Your task to perform on an android device: toggle pop-ups in chrome Image 0: 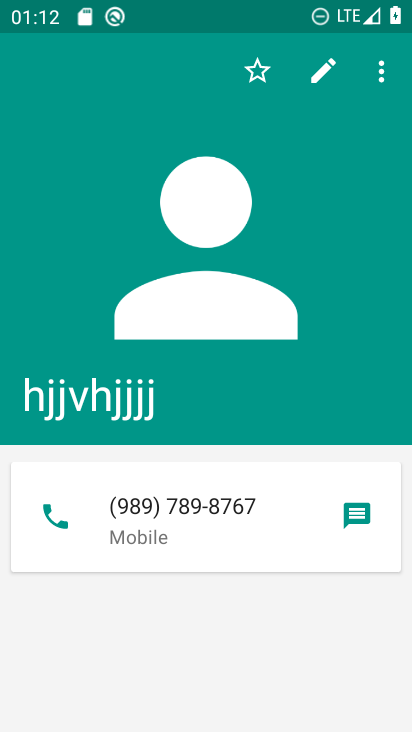
Step 0: press home button
Your task to perform on an android device: toggle pop-ups in chrome Image 1: 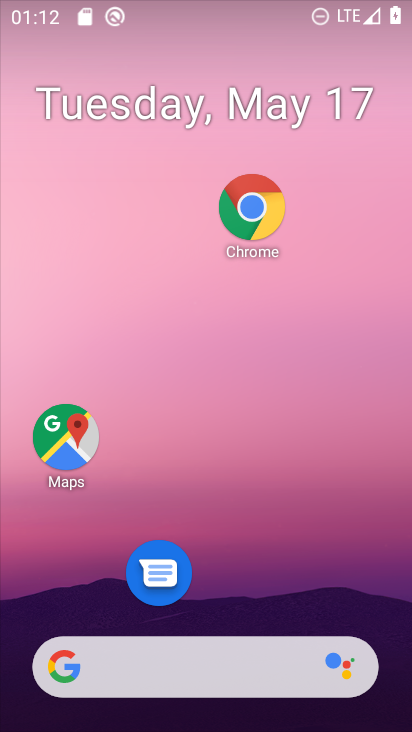
Step 1: drag from (229, 682) to (239, 156)
Your task to perform on an android device: toggle pop-ups in chrome Image 2: 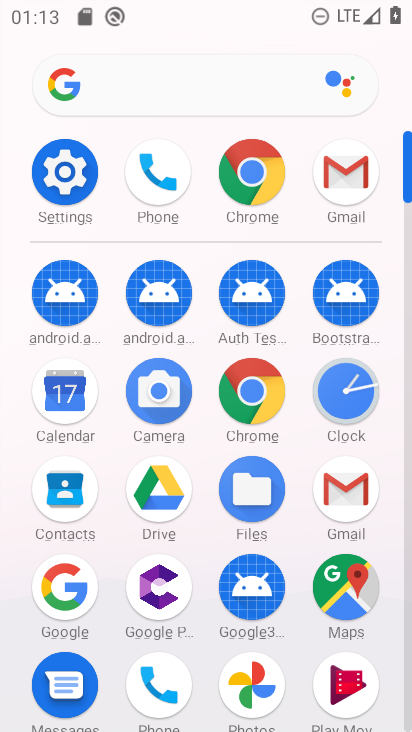
Step 2: click (256, 399)
Your task to perform on an android device: toggle pop-ups in chrome Image 3: 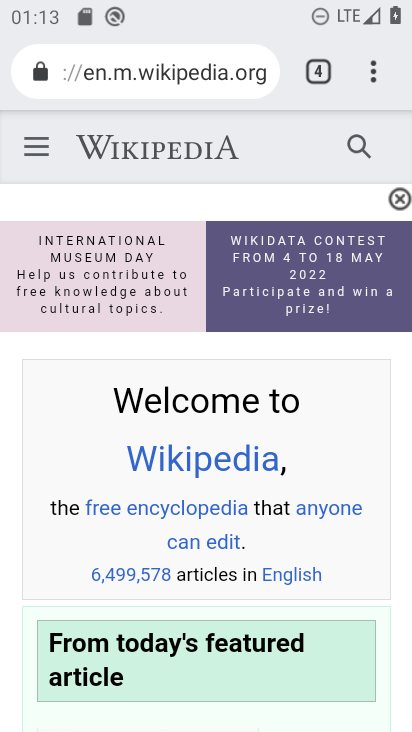
Step 3: click (377, 68)
Your task to perform on an android device: toggle pop-ups in chrome Image 4: 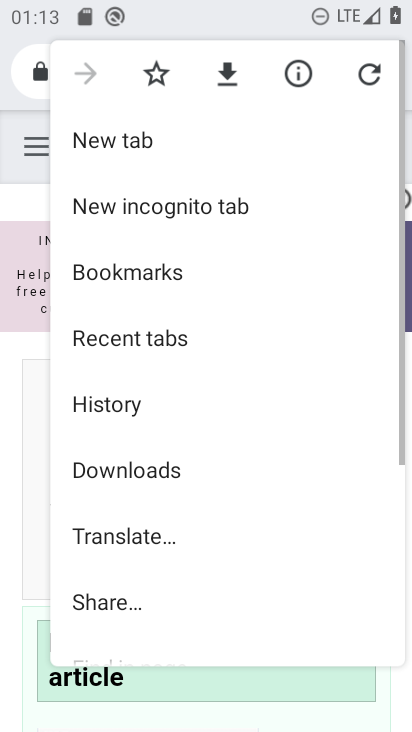
Step 4: drag from (260, 635) to (278, 188)
Your task to perform on an android device: toggle pop-ups in chrome Image 5: 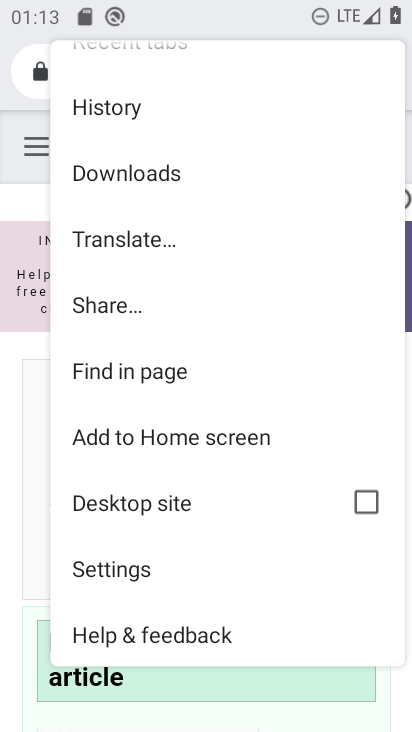
Step 5: click (223, 580)
Your task to perform on an android device: toggle pop-ups in chrome Image 6: 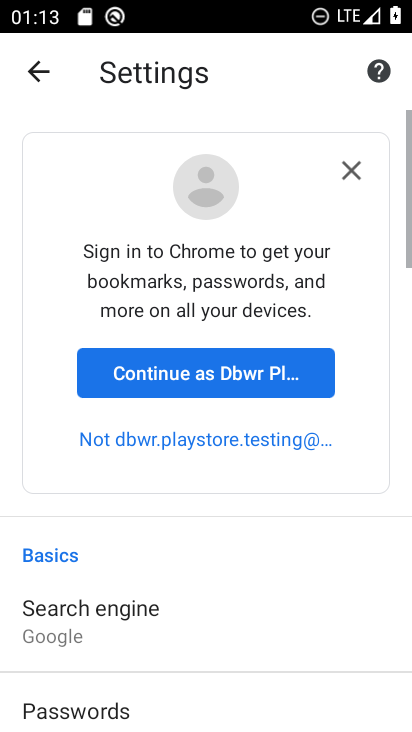
Step 6: drag from (229, 619) to (255, 17)
Your task to perform on an android device: toggle pop-ups in chrome Image 7: 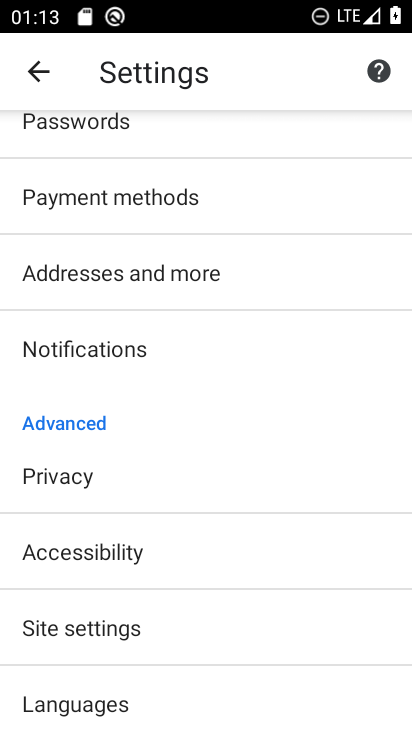
Step 7: click (164, 626)
Your task to perform on an android device: toggle pop-ups in chrome Image 8: 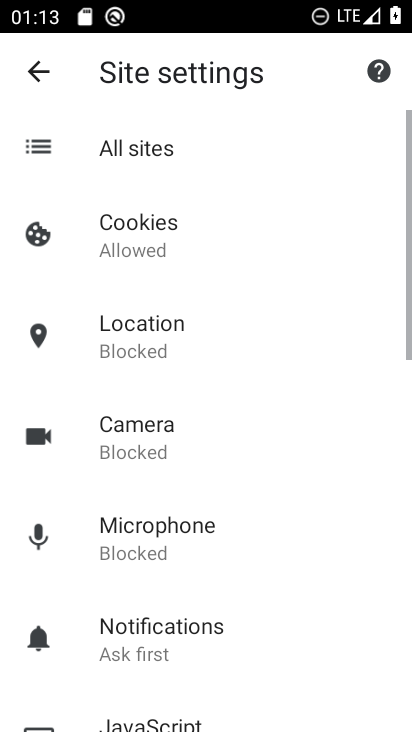
Step 8: drag from (235, 689) to (244, 139)
Your task to perform on an android device: toggle pop-ups in chrome Image 9: 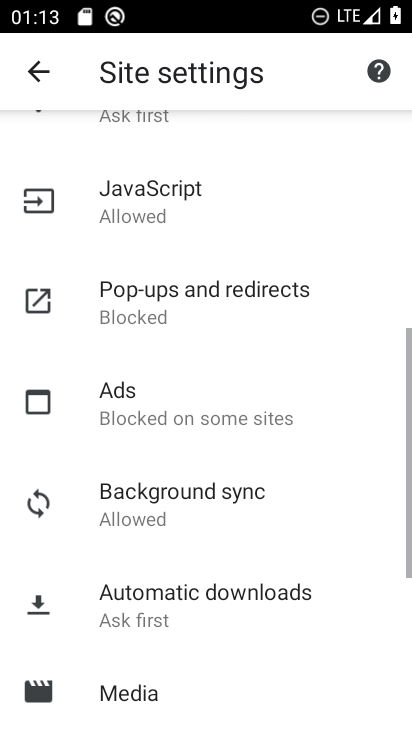
Step 9: click (234, 299)
Your task to perform on an android device: toggle pop-ups in chrome Image 10: 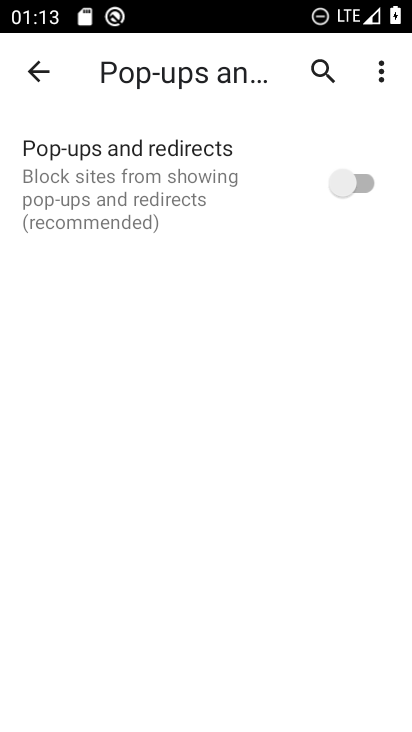
Step 10: click (347, 186)
Your task to perform on an android device: toggle pop-ups in chrome Image 11: 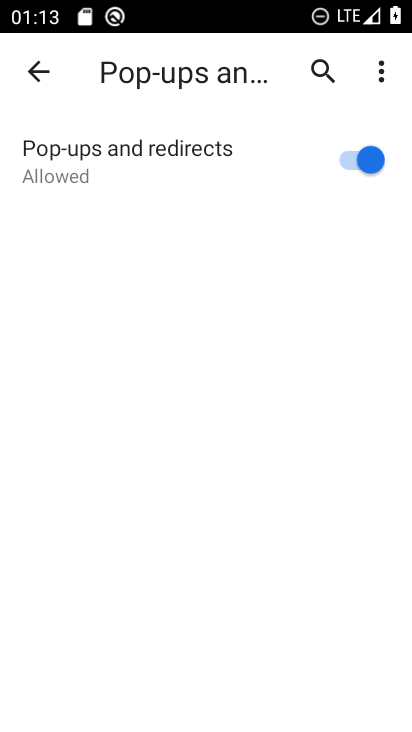
Step 11: task complete